Your task to perform on an android device: turn off airplane mode Image 0: 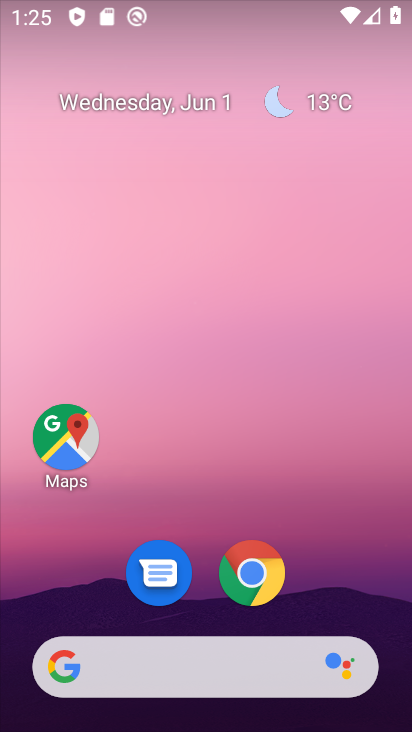
Step 0: drag from (211, 582) to (237, 138)
Your task to perform on an android device: turn off airplane mode Image 1: 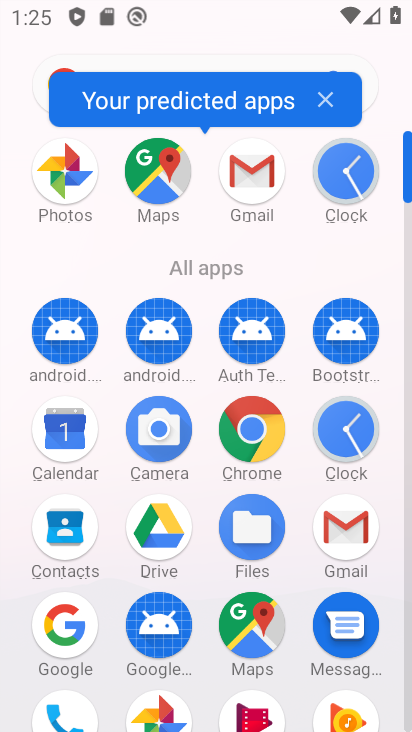
Step 1: drag from (200, 554) to (226, 128)
Your task to perform on an android device: turn off airplane mode Image 2: 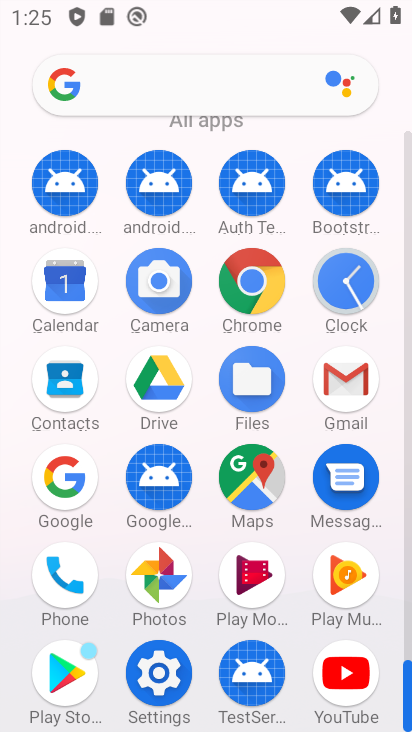
Step 2: click (153, 671)
Your task to perform on an android device: turn off airplane mode Image 3: 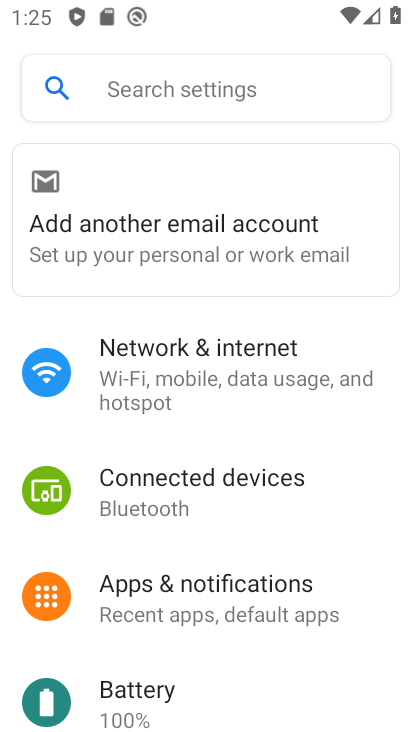
Step 3: click (158, 376)
Your task to perform on an android device: turn off airplane mode Image 4: 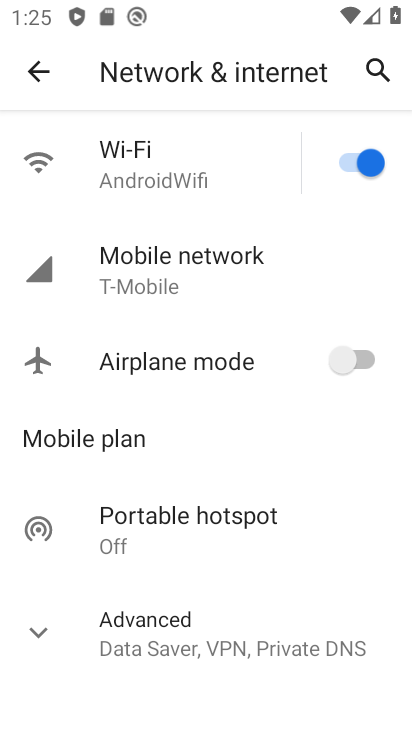
Step 4: task complete